Your task to perform on an android device: Open the stopwatch Image 0: 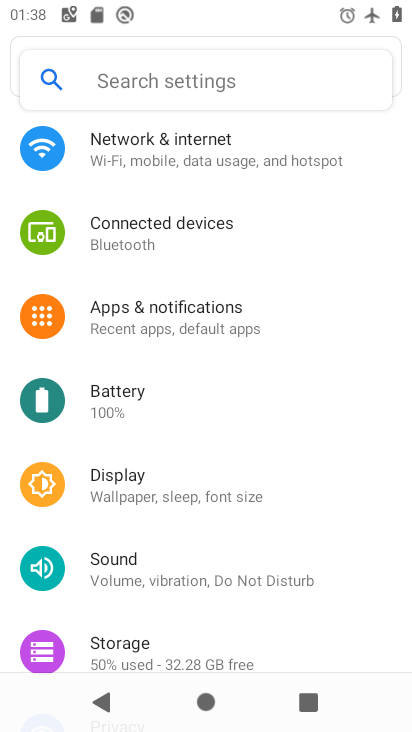
Step 0: press home button
Your task to perform on an android device: Open the stopwatch Image 1: 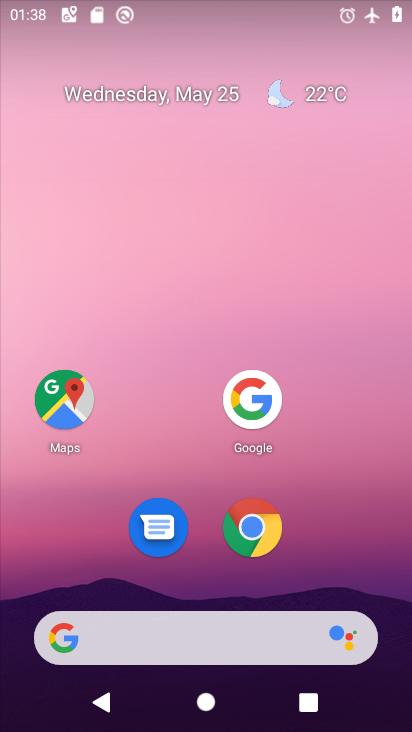
Step 1: drag from (146, 646) to (293, 209)
Your task to perform on an android device: Open the stopwatch Image 2: 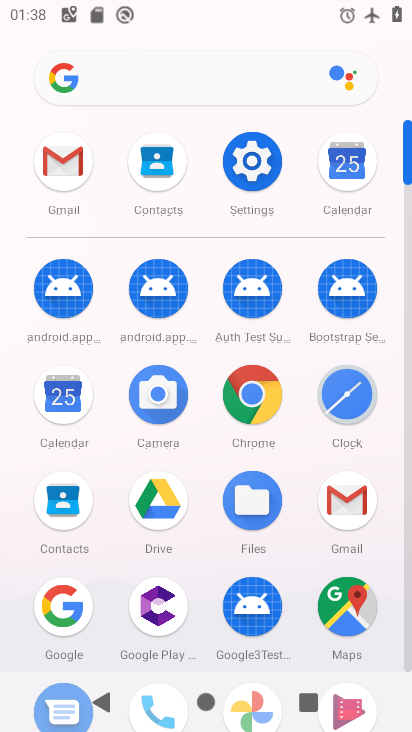
Step 2: click (346, 402)
Your task to perform on an android device: Open the stopwatch Image 3: 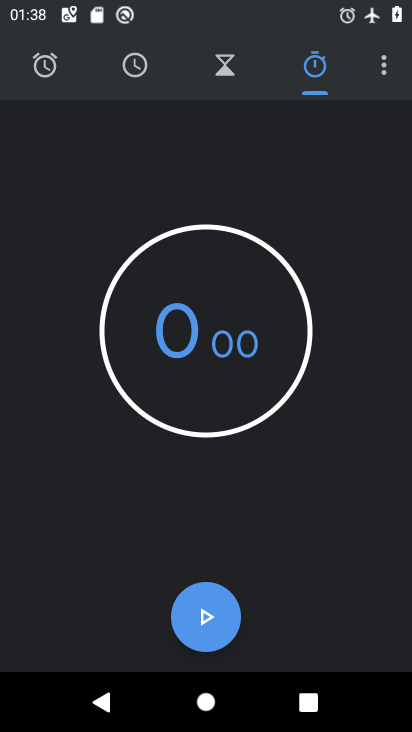
Step 3: task complete